Your task to perform on an android device: check android version Image 0: 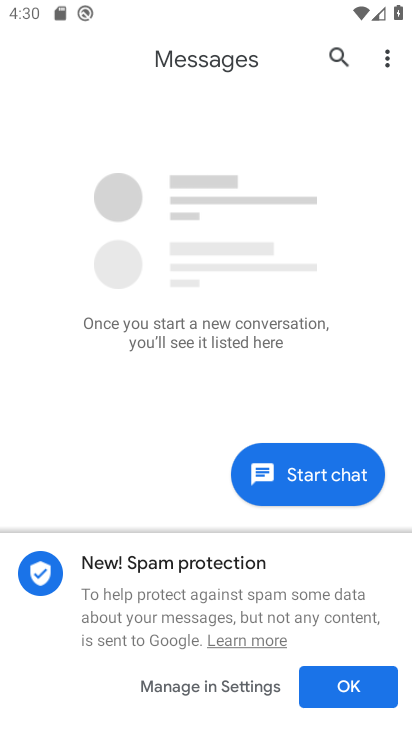
Step 0: press home button
Your task to perform on an android device: check android version Image 1: 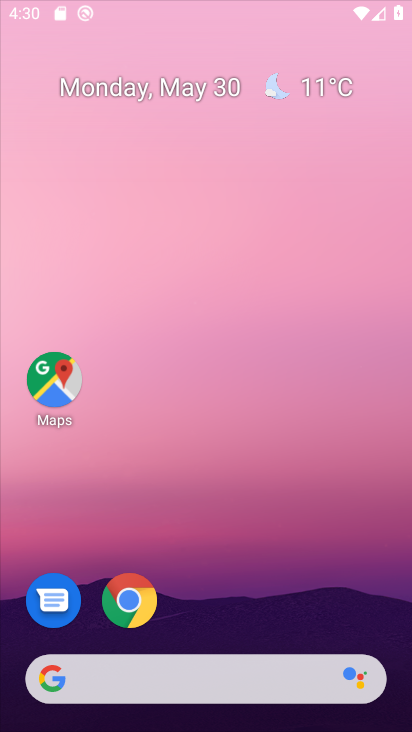
Step 1: drag from (332, 502) to (307, 19)
Your task to perform on an android device: check android version Image 2: 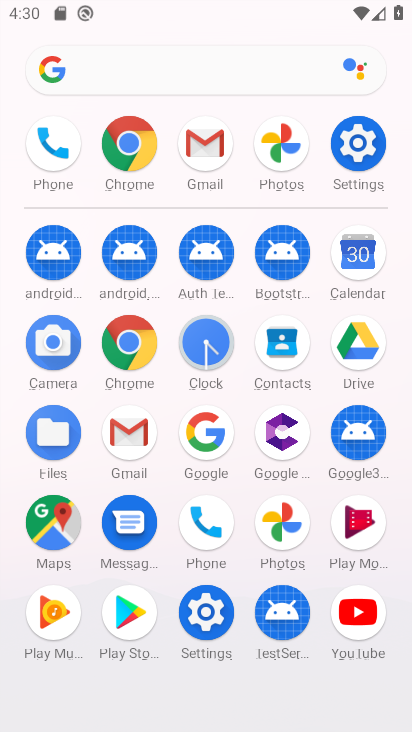
Step 2: click (374, 153)
Your task to perform on an android device: check android version Image 3: 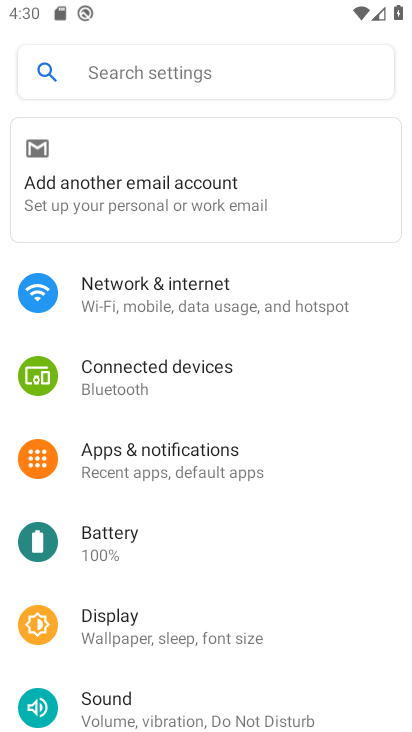
Step 3: drag from (173, 693) to (207, 248)
Your task to perform on an android device: check android version Image 4: 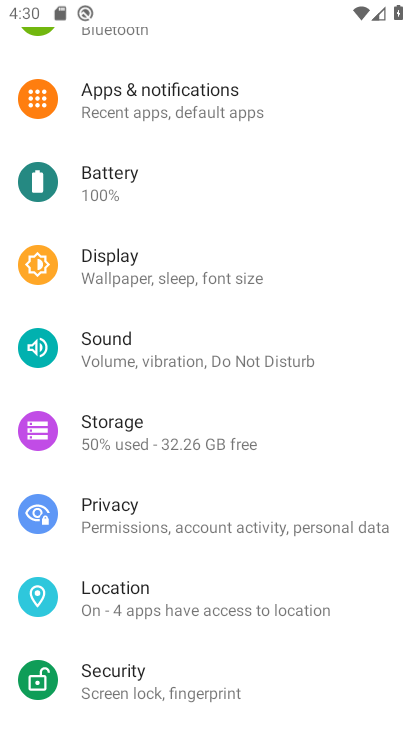
Step 4: drag from (186, 575) to (244, 110)
Your task to perform on an android device: check android version Image 5: 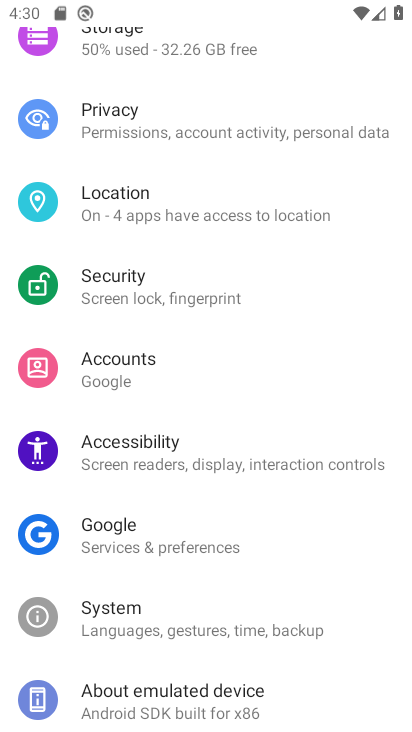
Step 5: drag from (244, 628) to (273, 203)
Your task to perform on an android device: check android version Image 6: 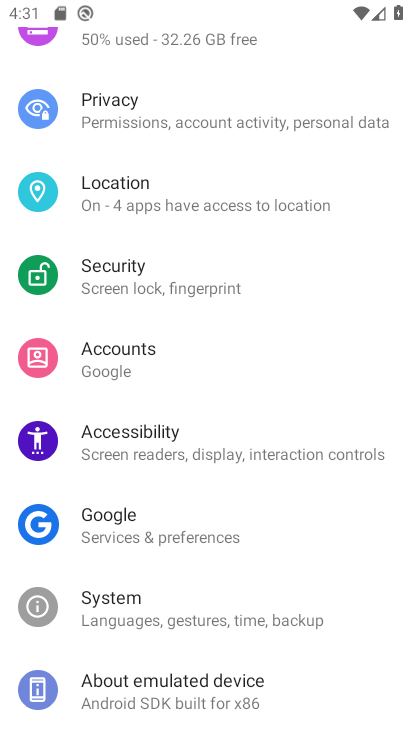
Step 6: click (190, 696)
Your task to perform on an android device: check android version Image 7: 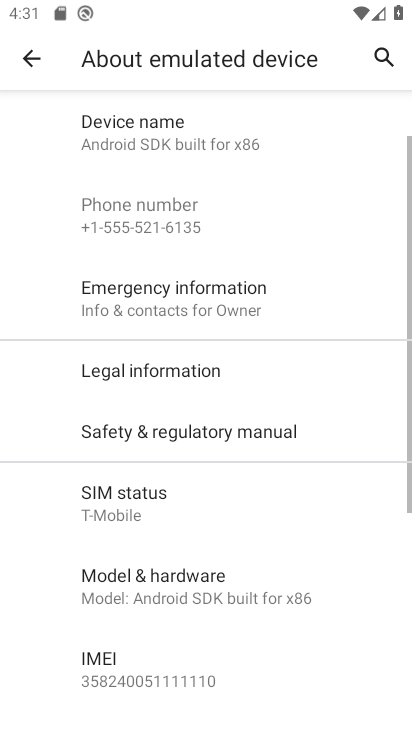
Step 7: drag from (199, 563) to (196, 135)
Your task to perform on an android device: check android version Image 8: 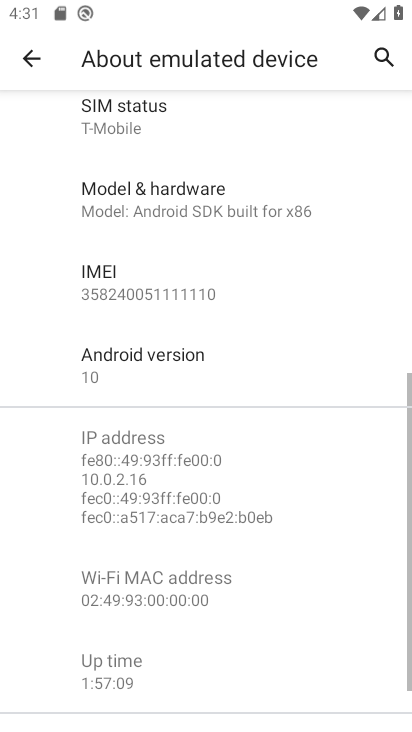
Step 8: click (136, 369)
Your task to perform on an android device: check android version Image 9: 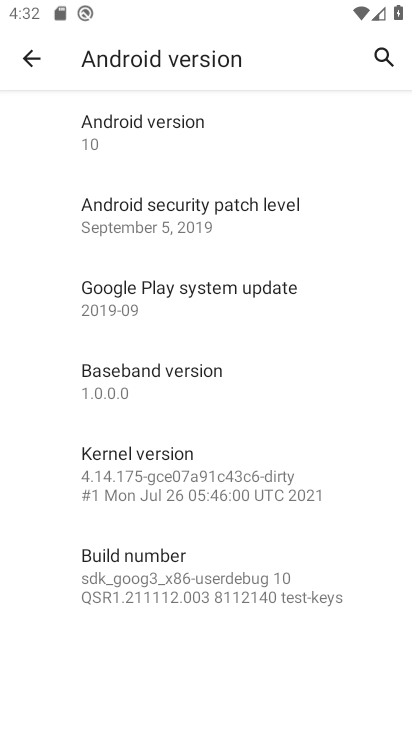
Step 9: task complete